Your task to perform on an android device: Open calendar and show me the fourth week of next month Image 0: 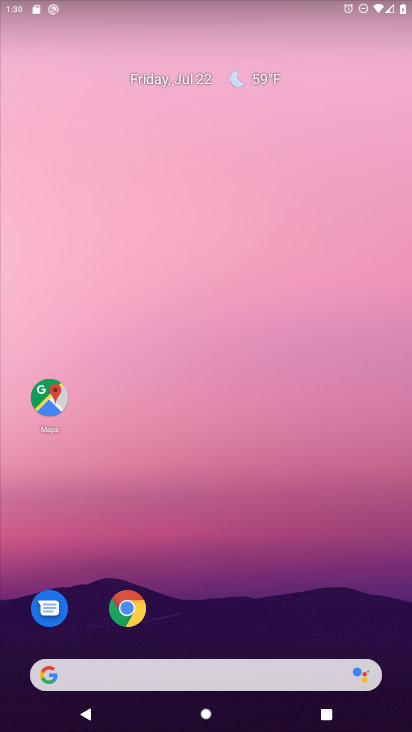
Step 0: drag from (347, 608) to (157, 51)
Your task to perform on an android device: Open calendar and show me the fourth week of next month Image 1: 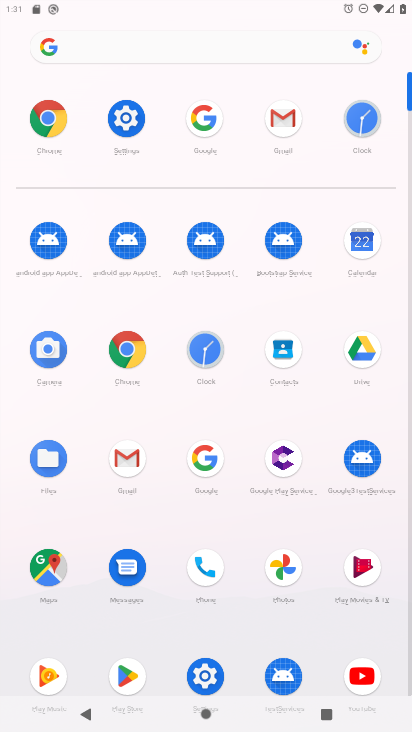
Step 1: click (370, 247)
Your task to perform on an android device: Open calendar and show me the fourth week of next month Image 2: 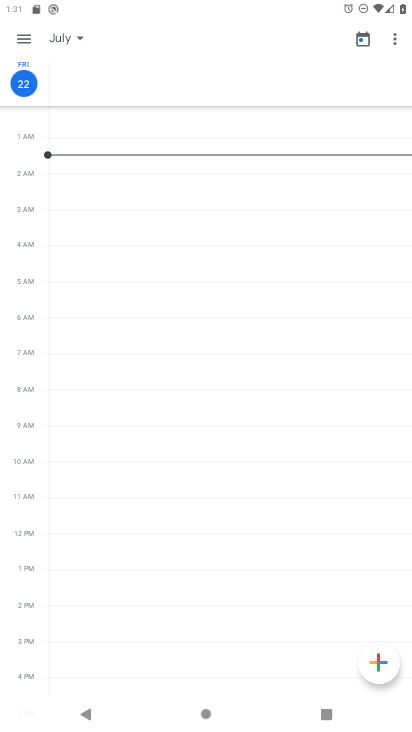
Step 2: click (40, 30)
Your task to perform on an android device: Open calendar and show me the fourth week of next month Image 3: 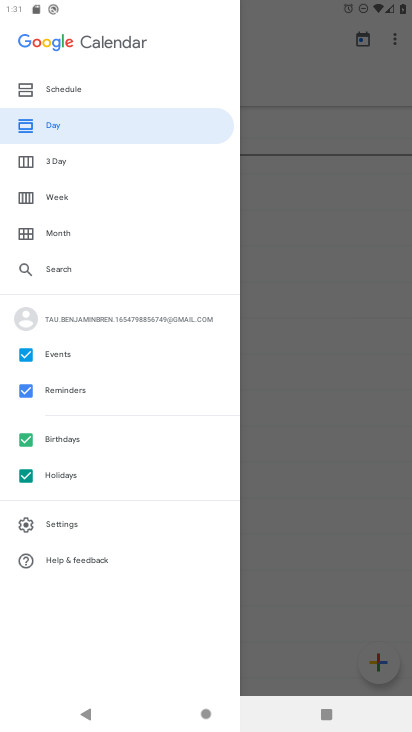
Step 3: press back button
Your task to perform on an android device: Open calendar and show me the fourth week of next month Image 4: 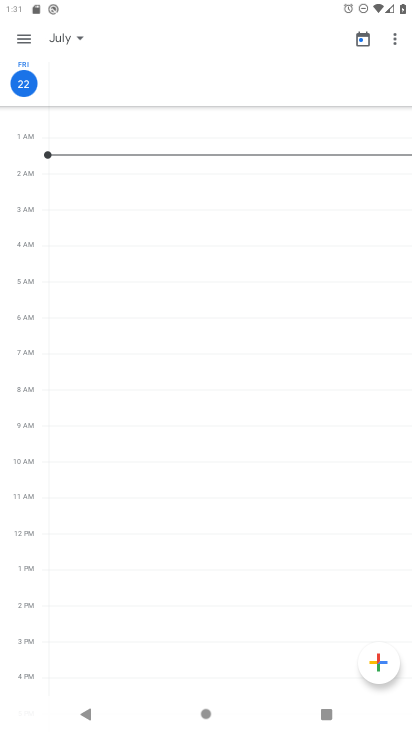
Step 4: click (58, 39)
Your task to perform on an android device: Open calendar and show me the fourth week of next month Image 5: 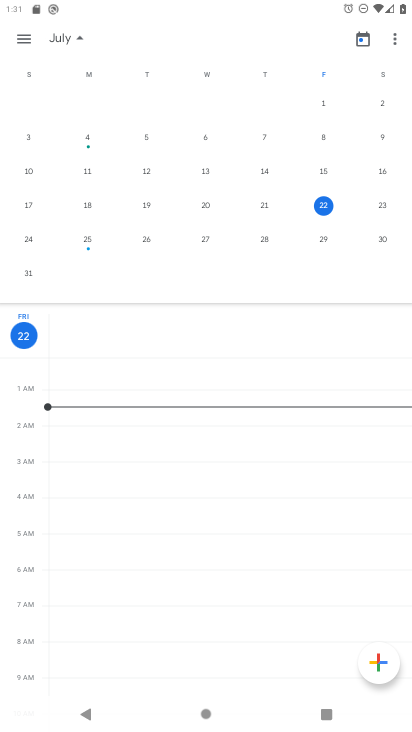
Step 5: drag from (366, 167) to (7, 164)
Your task to perform on an android device: Open calendar and show me the fourth week of next month Image 6: 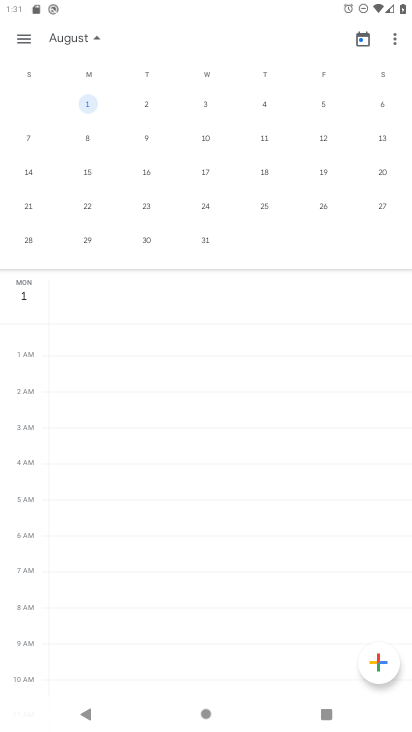
Step 6: click (24, 237)
Your task to perform on an android device: Open calendar and show me the fourth week of next month Image 7: 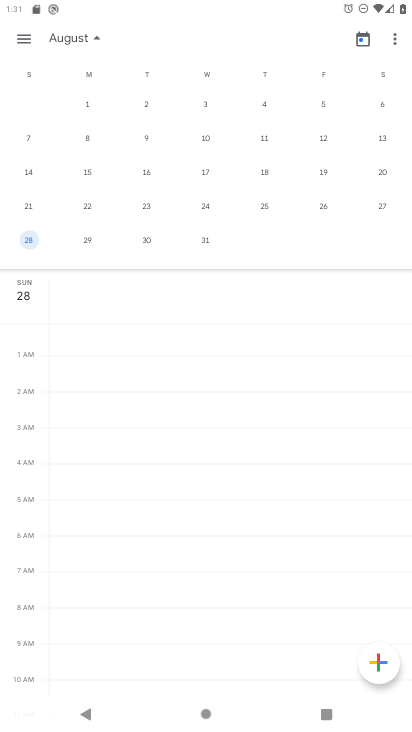
Step 7: task complete